Your task to perform on an android device: toggle priority inbox in the gmail app Image 0: 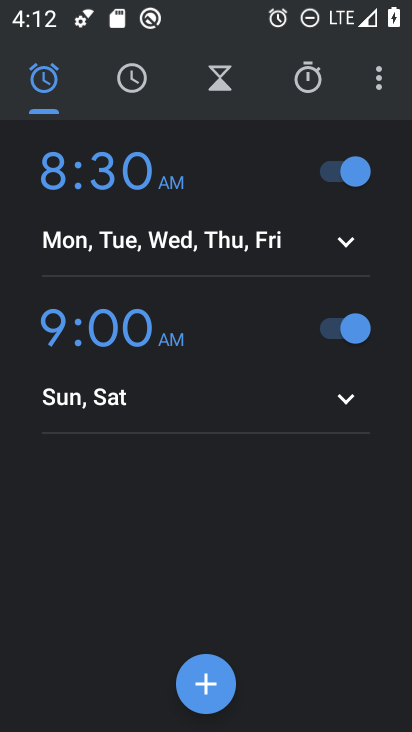
Step 0: press back button
Your task to perform on an android device: toggle priority inbox in the gmail app Image 1: 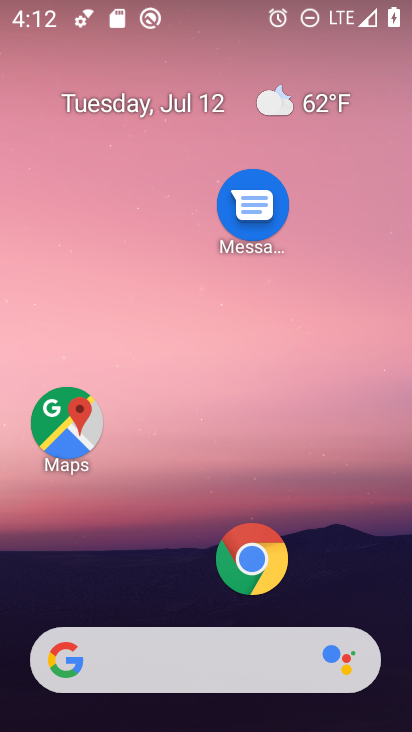
Step 1: drag from (197, 556) to (261, 28)
Your task to perform on an android device: toggle priority inbox in the gmail app Image 2: 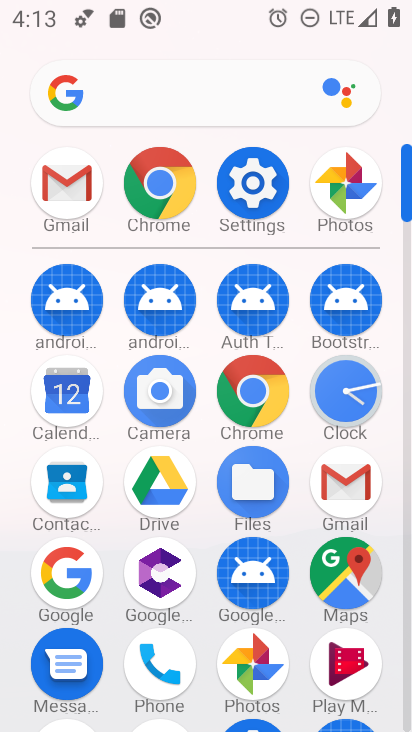
Step 2: click (70, 167)
Your task to perform on an android device: toggle priority inbox in the gmail app Image 3: 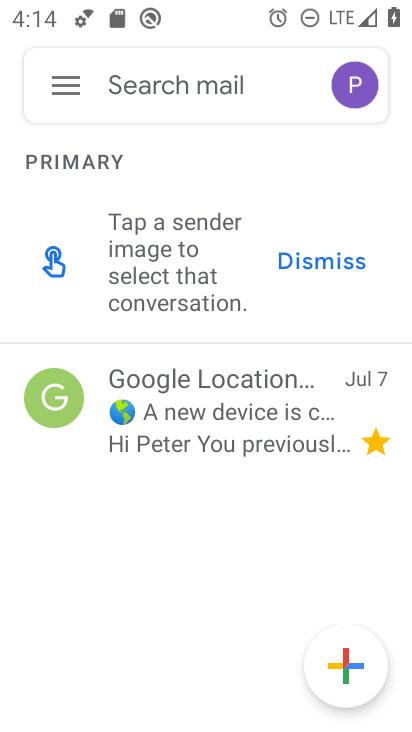
Step 3: click (74, 78)
Your task to perform on an android device: toggle priority inbox in the gmail app Image 4: 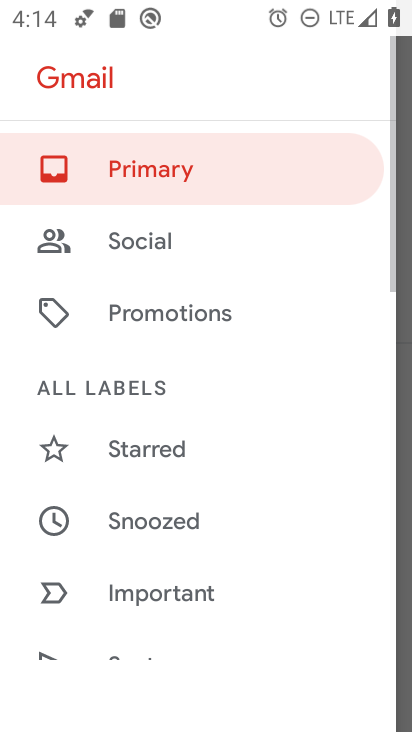
Step 4: drag from (245, 593) to (323, 76)
Your task to perform on an android device: toggle priority inbox in the gmail app Image 5: 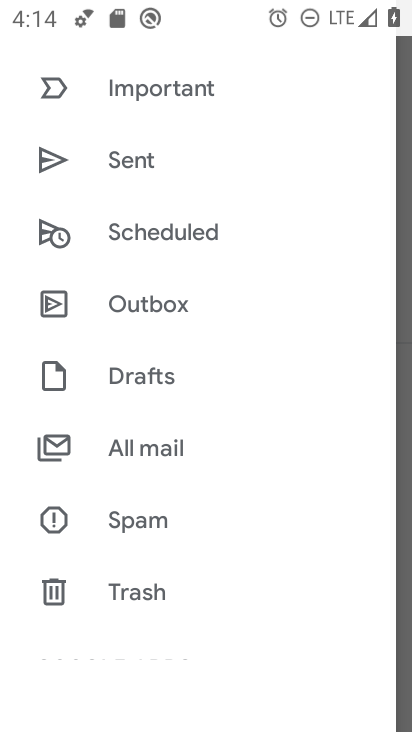
Step 5: drag from (141, 583) to (274, 55)
Your task to perform on an android device: toggle priority inbox in the gmail app Image 6: 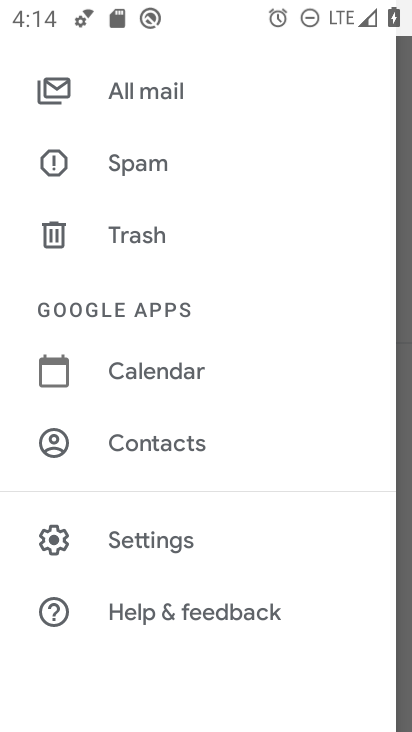
Step 6: click (138, 537)
Your task to perform on an android device: toggle priority inbox in the gmail app Image 7: 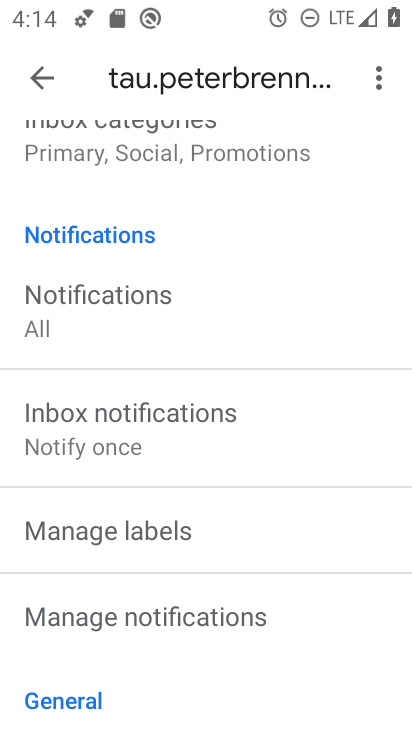
Step 7: drag from (181, 265) to (72, 730)
Your task to perform on an android device: toggle priority inbox in the gmail app Image 8: 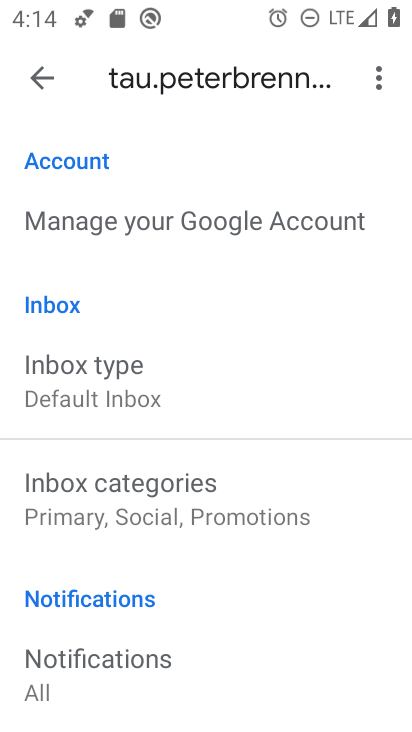
Step 8: drag from (186, 590) to (325, 15)
Your task to perform on an android device: toggle priority inbox in the gmail app Image 9: 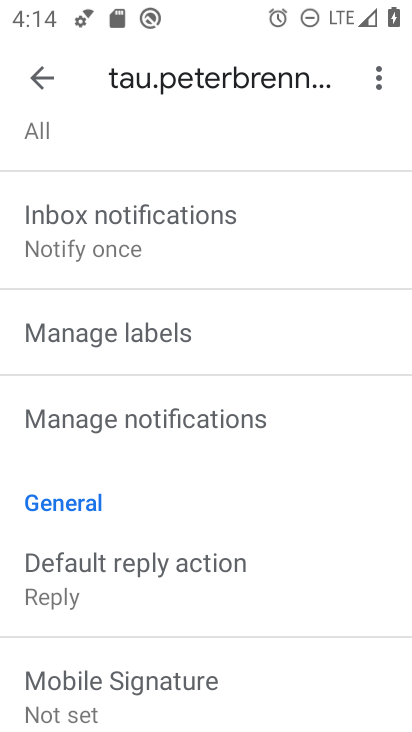
Step 9: drag from (113, 645) to (270, 89)
Your task to perform on an android device: toggle priority inbox in the gmail app Image 10: 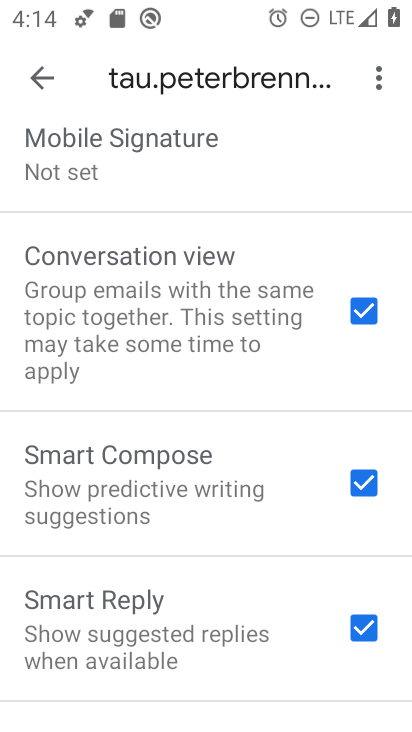
Step 10: drag from (153, 611) to (234, 129)
Your task to perform on an android device: toggle priority inbox in the gmail app Image 11: 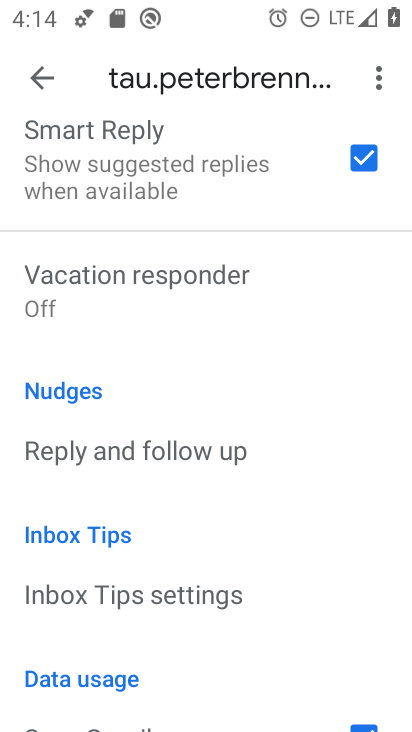
Step 11: drag from (137, 639) to (252, 46)
Your task to perform on an android device: toggle priority inbox in the gmail app Image 12: 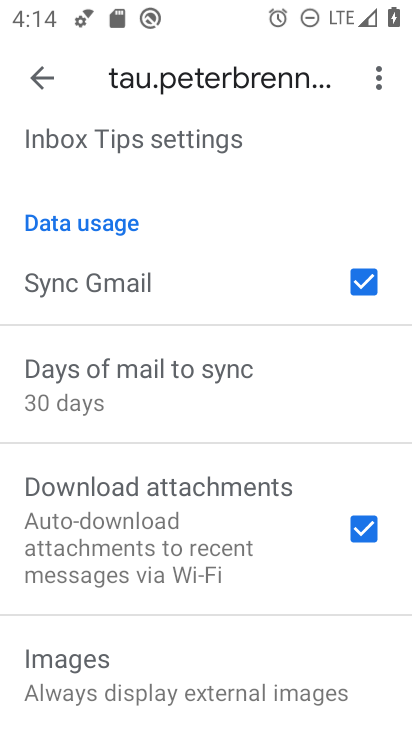
Step 12: drag from (109, 712) to (269, 82)
Your task to perform on an android device: toggle priority inbox in the gmail app Image 13: 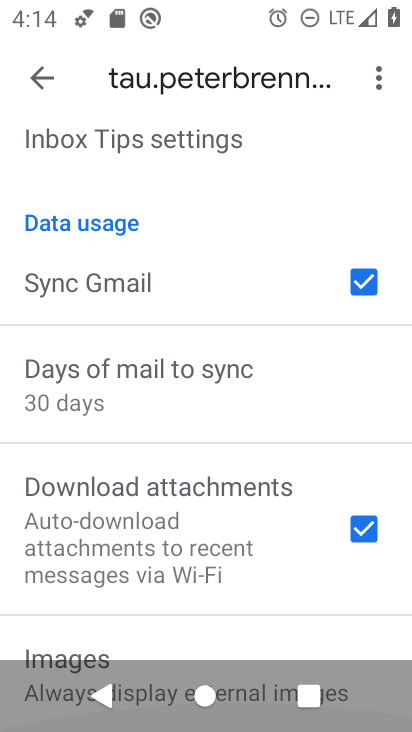
Step 13: drag from (250, 258) to (108, 689)
Your task to perform on an android device: toggle priority inbox in the gmail app Image 14: 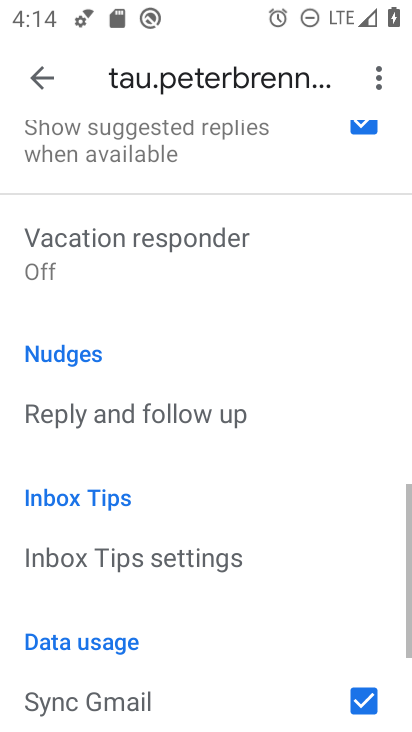
Step 14: drag from (194, 160) to (40, 728)
Your task to perform on an android device: toggle priority inbox in the gmail app Image 15: 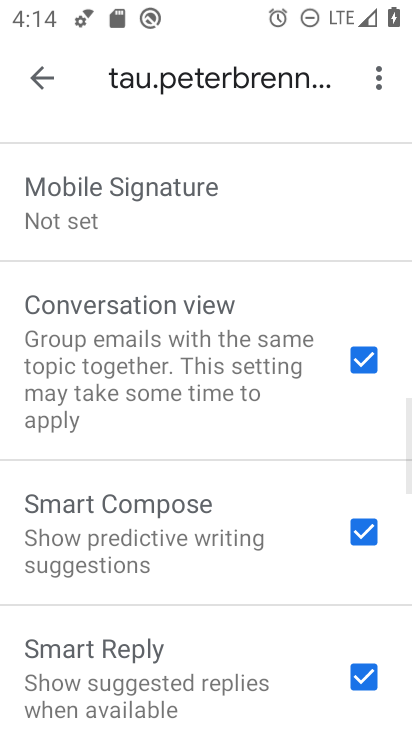
Step 15: drag from (187, 250) to (156, 723)
Your task to perform on an android device: toggle priority inbox in the gmail app Image 16: 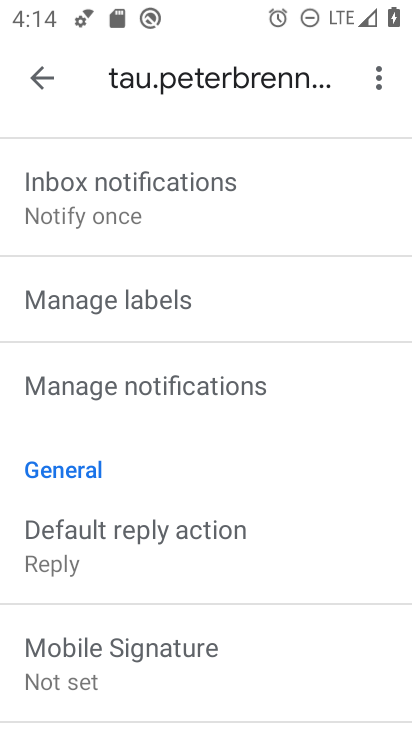
Step 16: drag from (217, 284) to (167, 729)
Your task to perform on an android device: toggle priority inbox in the gmail app Image 17: 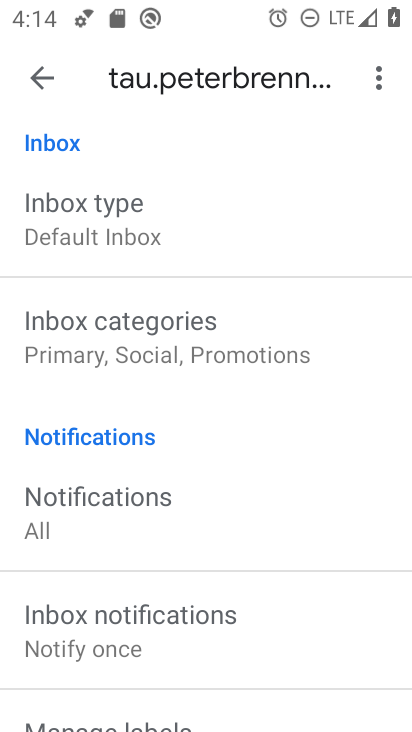
Step 17: click (112, 228)
Your task to perform on an android device: toggle priority inbox in the gmail app Image 18: 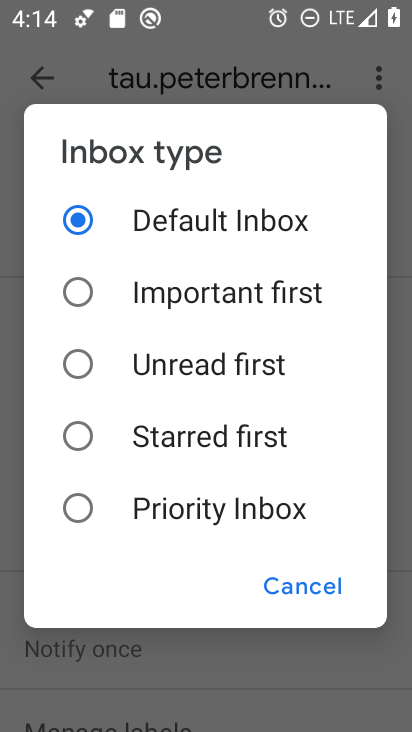
Step 18: click (87, 506)
Your task to perform on an android device: toggle priority inbox in the gmail app Image 19: 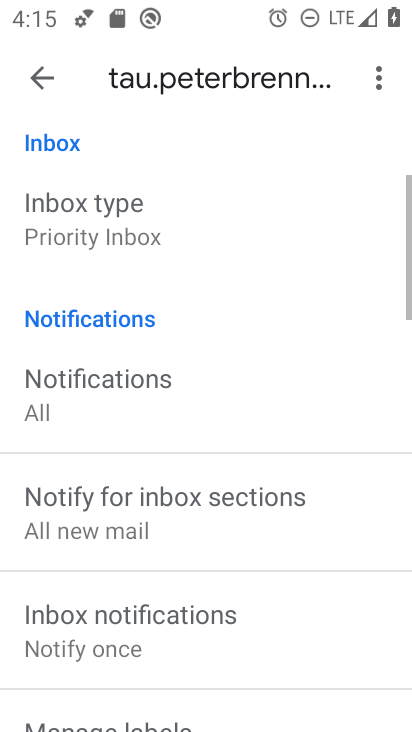
Step 19: task complete